Your task to perform on an android device: clear all cookies in the chrome app Image 0: 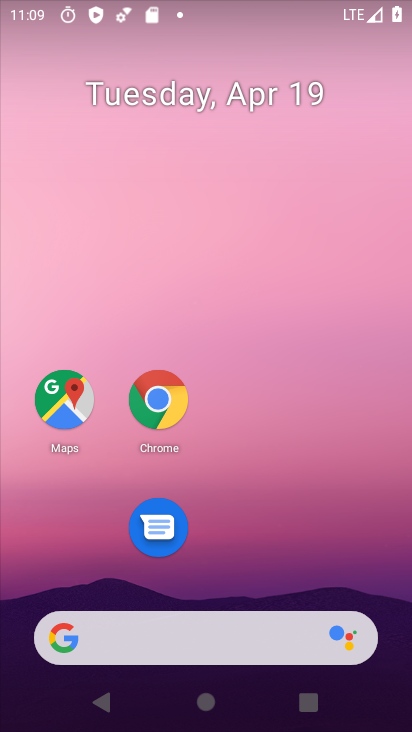
Step 0: drag from (196, 678) to (190, 233)
Your task to perform on an android device: clear all cookies in the chrome app Image 1: 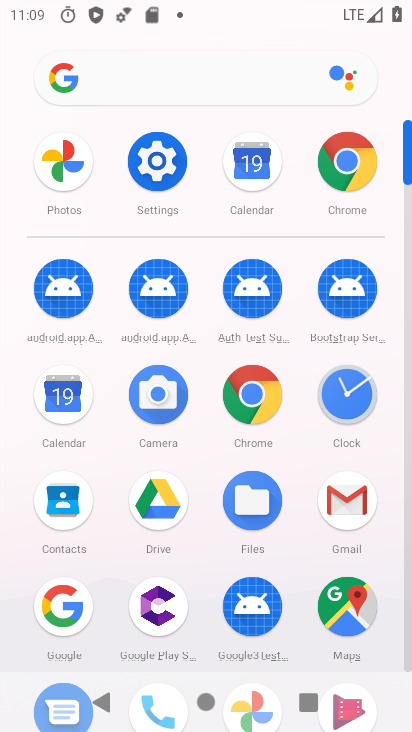
Step 1: click (340, 175)
Your task to perform on an android device: clear all cookies in the chrome app Image 2: 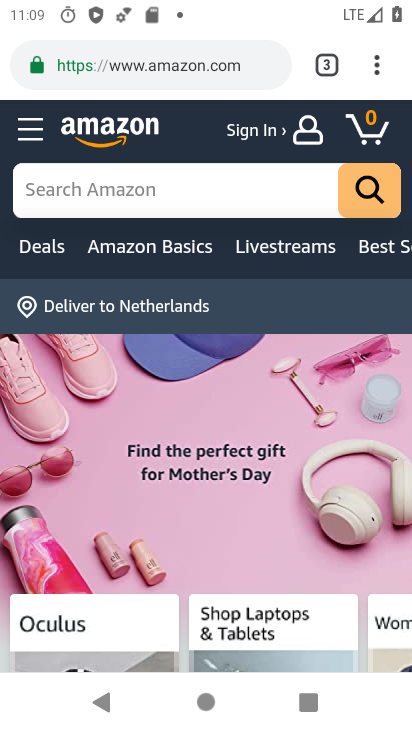
Step 2: click (375, 63)
Your task to perform on an android device: clear all cookies in the chrome app Image 3: 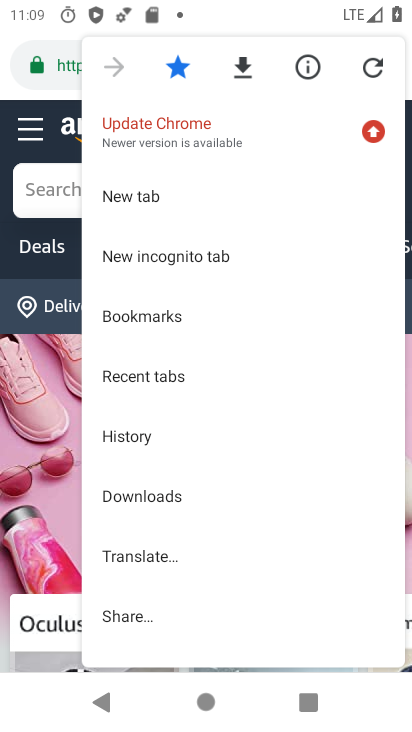
Step 3: drag from (182, 531) to (234, 270)
Your task to perform on an android device: clear all cookies in the chrome app Image 4: 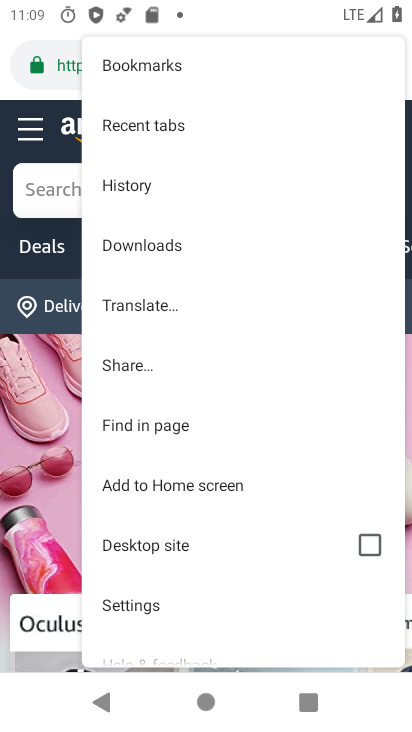
Step 4: click (138, 606)
Your task to perform on an android device: clear all cookies in the chrome app Image 5: 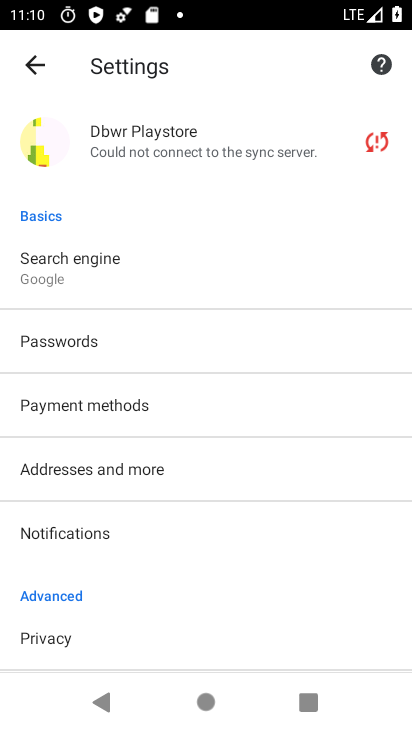
Step 5: drag from (226, 593) to (244, 387)
Your task to perform on an android device: clear all cookies in the chrome app Image 6: 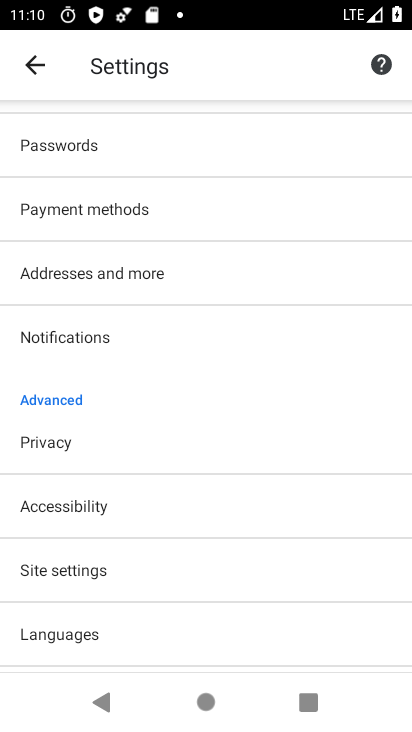
Step 6: click (68, 564)
Your task to perform on an android device: clear all cookies in the chrome app Image 7: 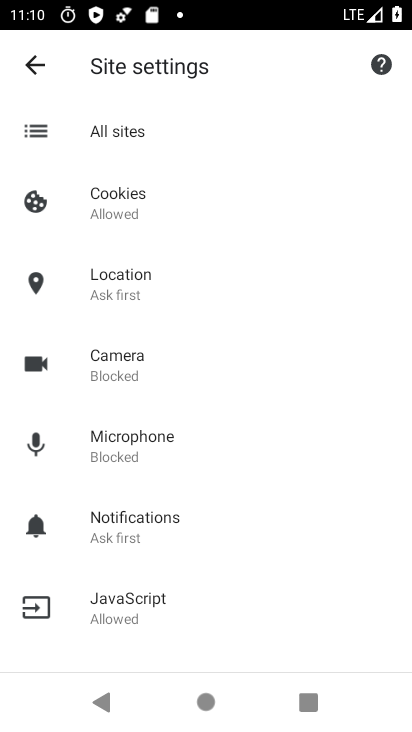
Step 7: click (47, 59)
Your task to perform on an android device: clear all cookies in the chrome app Image 8: 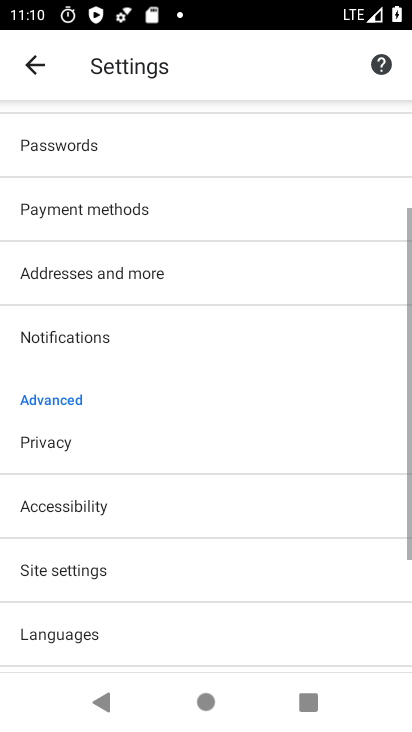
Step 8: drag from (204, 405) to (199, 15)
Your task to perform on an android device: clear all cookies in the chrome app Image 9: 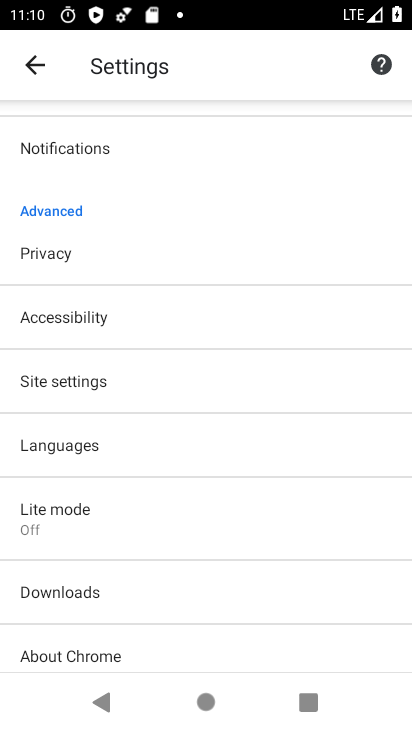
Step 9: click (96, 253)
Your task to perform on an android device: clear all cookies in the chrome app Image 10: 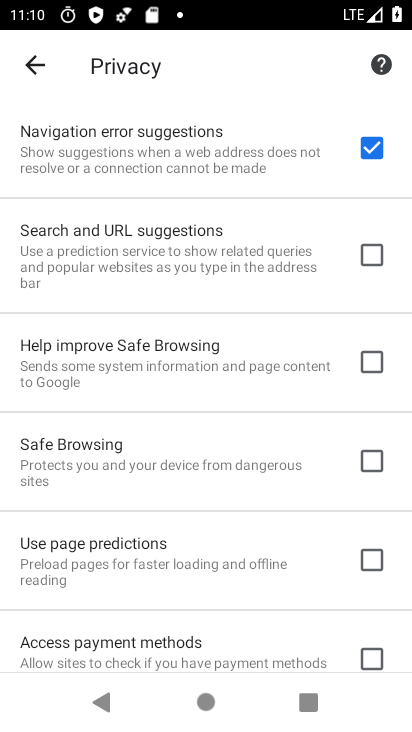
Step 10: drag from (104, 491) to (142, 15)
Your task to perform on an android device: clear all cookies in the chrome app Image 11: 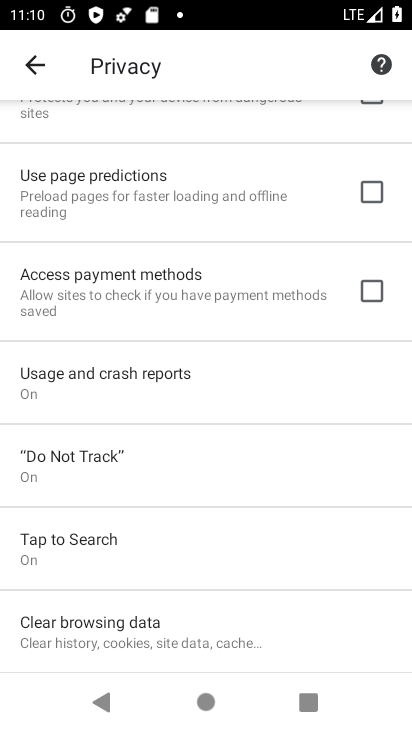
Step 11: click (115, 624)
Your task to perform on an android device: clear all cookies in the chrome app Image 12: 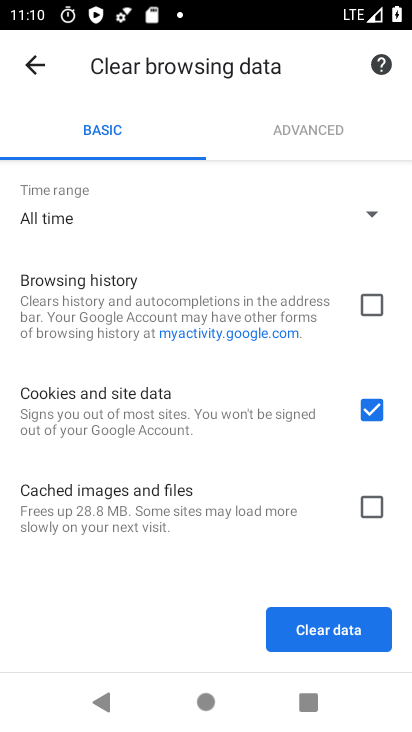
Step 12: click (321, 633)
Your task to perform on an android device: clear all cookies in the chrome app Image 13: 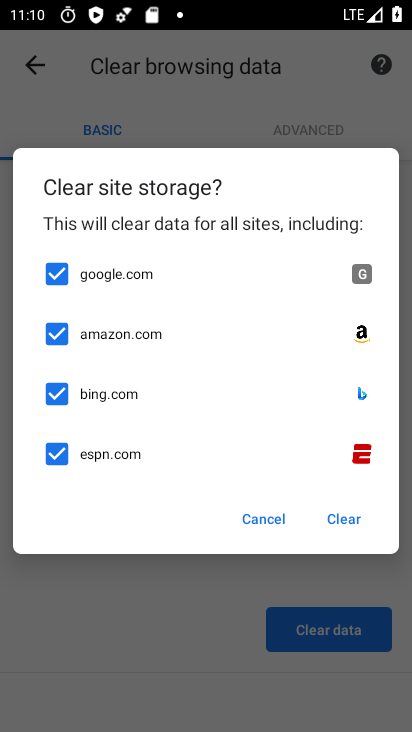
Step 13: task complete